Your task to perform on an android device: What's the weather today? Image 0: 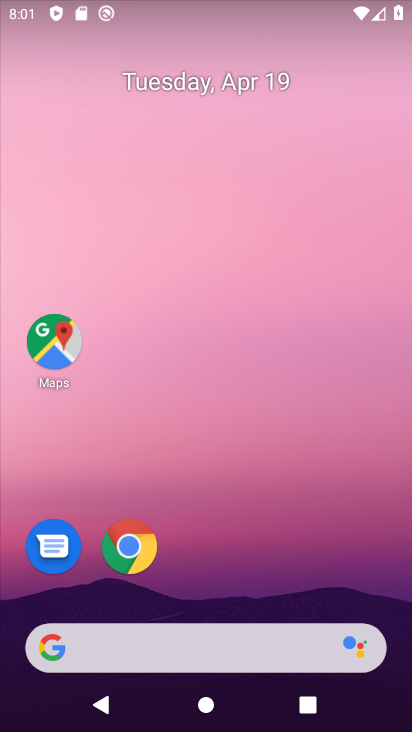
Step 0: drag from (113, 526) to (292, 157)
Your task to perform on an android device: What's the weather today? Image 1: 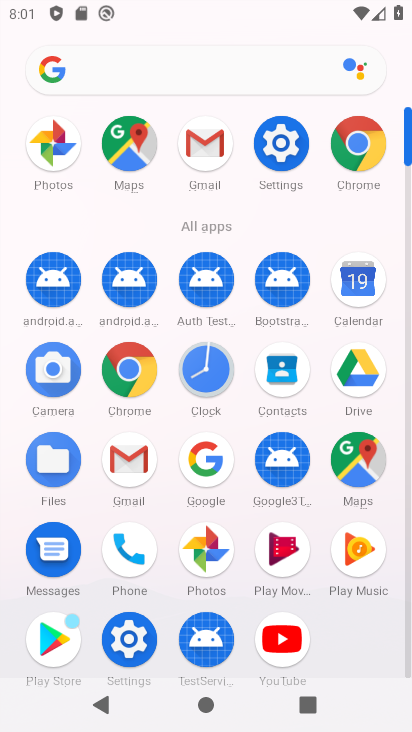
Step 1: drag from (54, 353) to (101, 254)
Your task to perform on an android device: What's the weather today? Image 2: 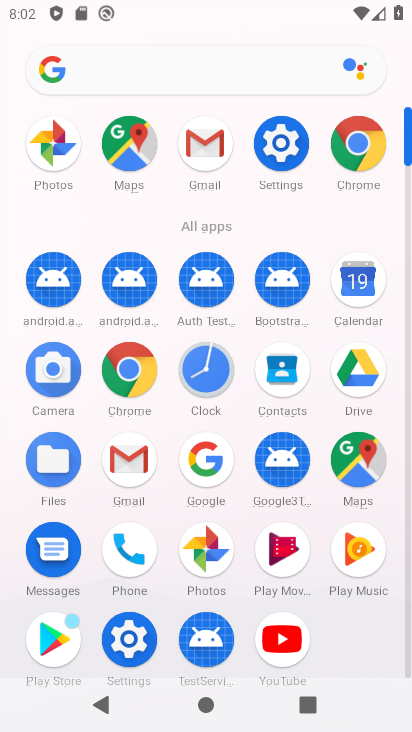
Step 2: drag from (53, 444) to (161, 211)
Your task to perform on an android device: What's the weather today? Image 3: 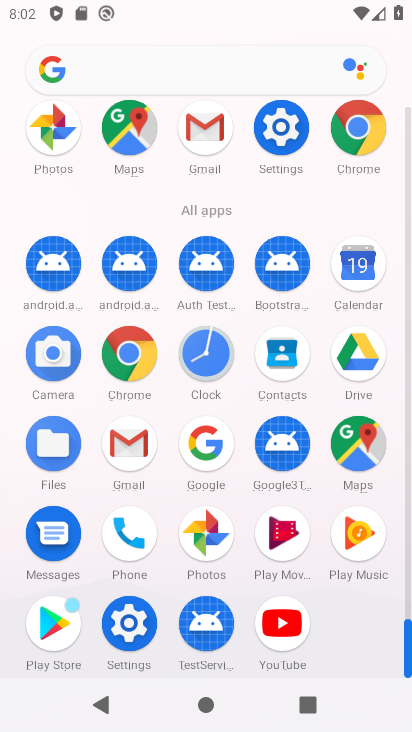
Step 3: press home button
Your task to perform on an android device: What's the weather today? Image 4: 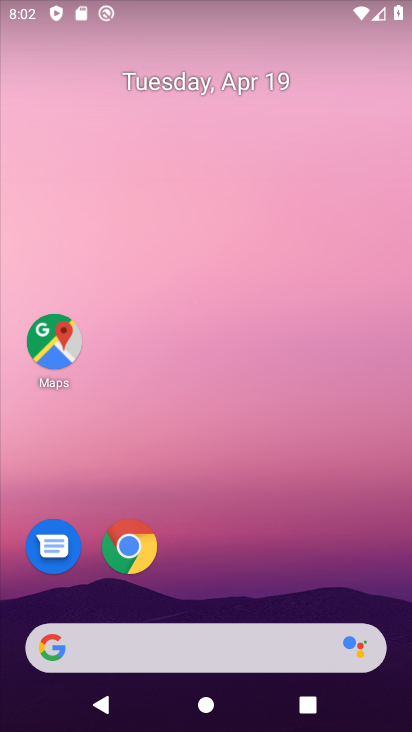
Step 4: click (248, 84)
Your task to perform on an android device: What's the weather today? Image 5: 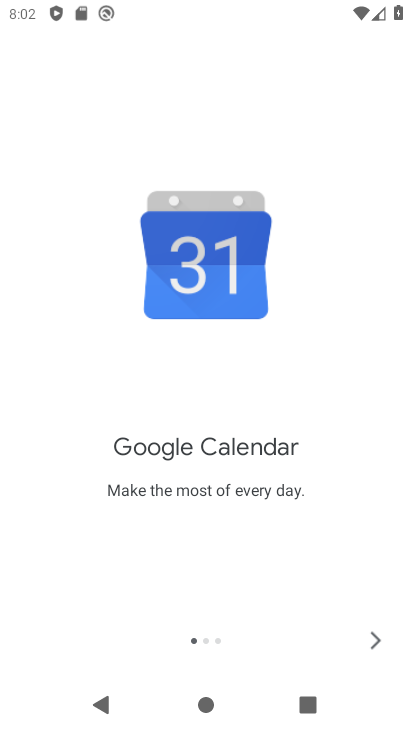
Step 5: click (378, 643)
Your task to perform on an android device: What's the weather today? Image 6: 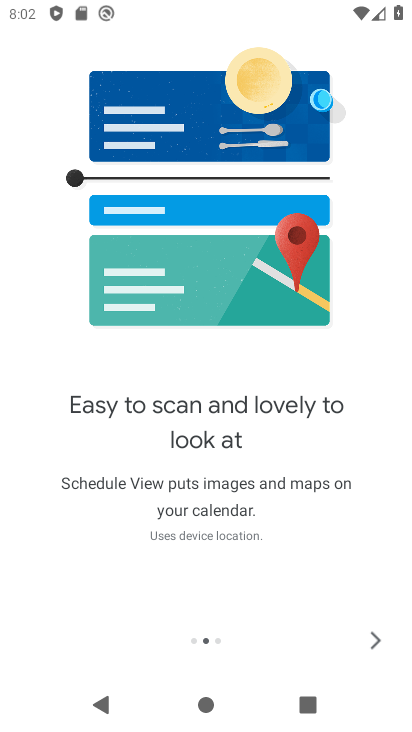
Step 6: click (378, 643)
Your task to perform on an android device: What's the weather today? Image 7: 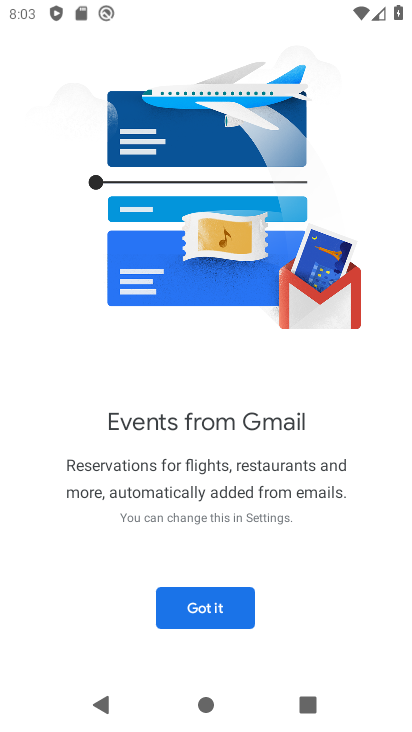
Step 7: click (227, 617)
Your task to perform on an android device: What's the weather today? Image 8: 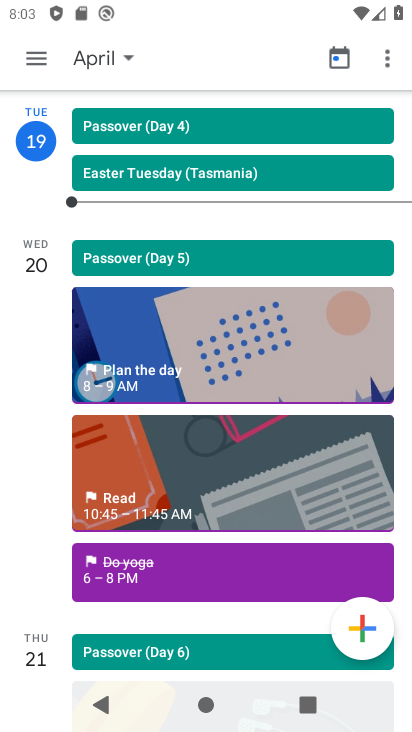
Step 8: press home button
Your task to perform on an android device: What's the weather today? Image 9: 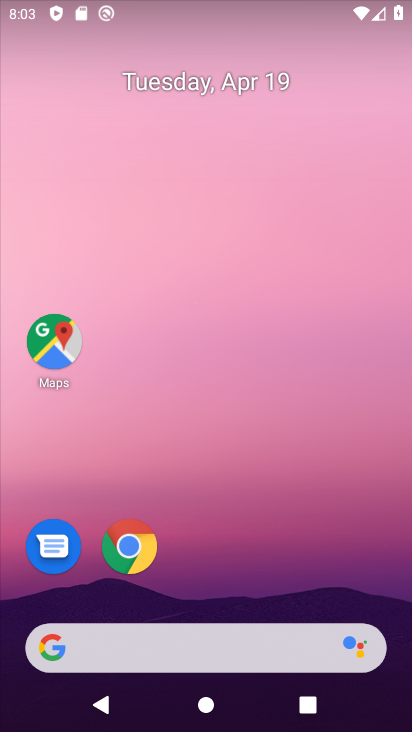
Step 9: click (126, 636)
Your task to perform on an android device: What's the weather today? Image 10: 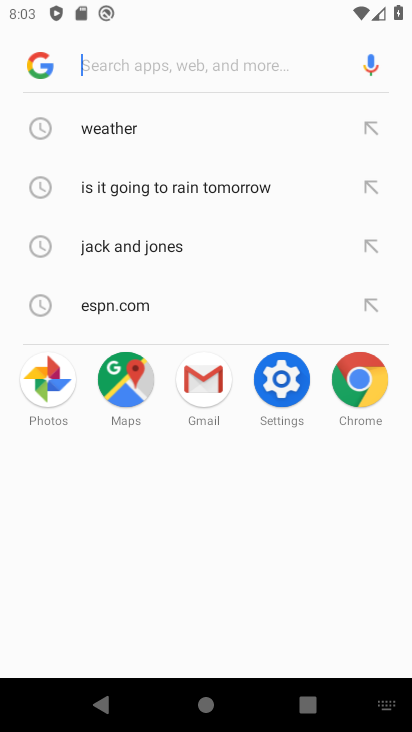
Step 10: type "what"
Your task to perform on an android device: What's the weather today? Image 11: 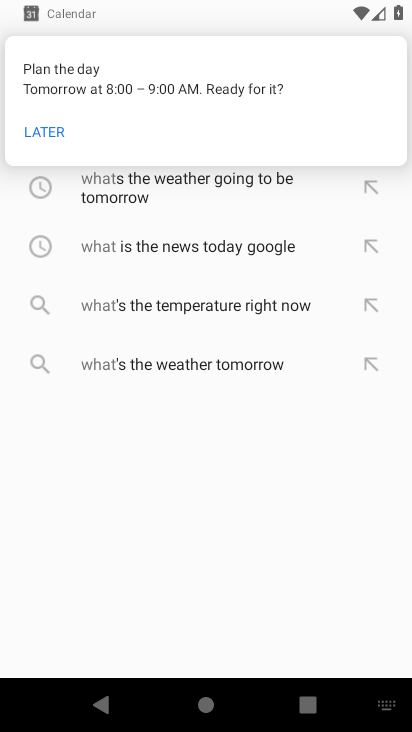
Step 11: type "What's the weather today?"
Your task to perform on an android device: What's the weather today? Image 12: 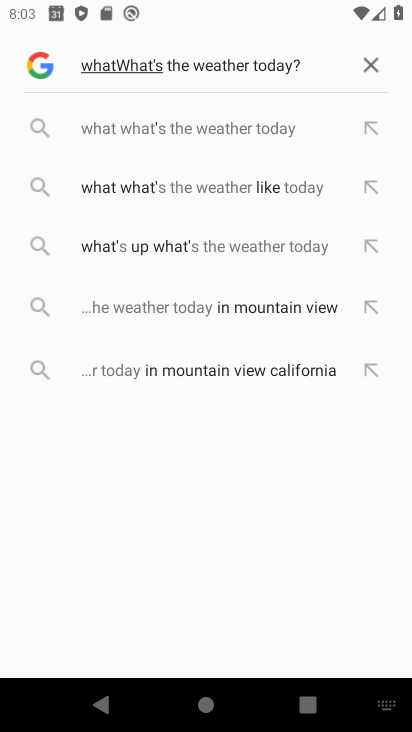
Step 12: click (113, 58)
Your task to perform on an android device: What's the weather today? Image 13: 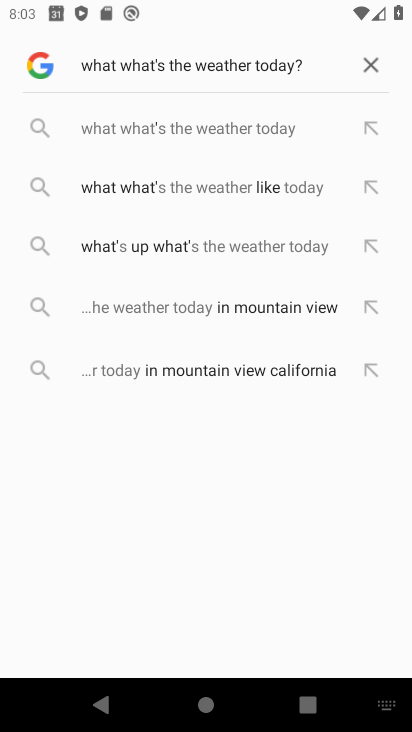
Step 13: click (116, 60)
Your task to perform on an android device: What's the weather today? Image 14: 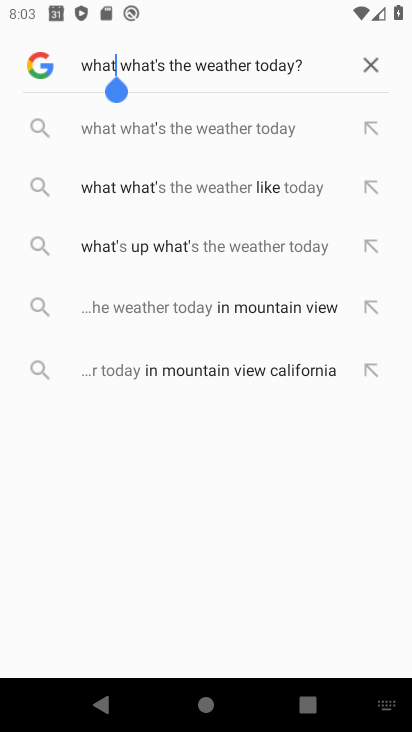
Step 14: click (117, 69)
Your task to perform on an android device: What's the weather today? Image 15: 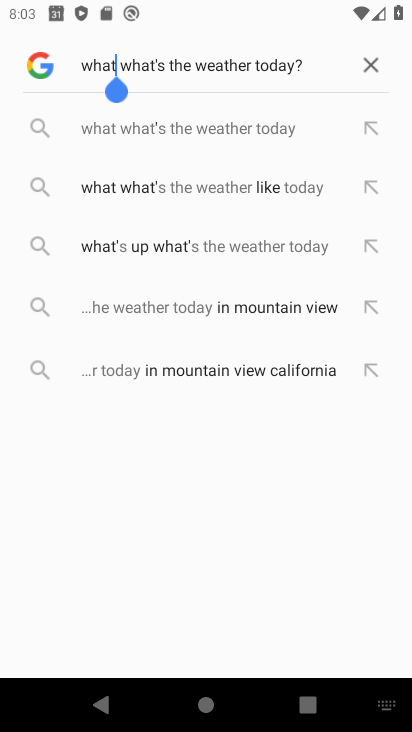
Step 15: click (117, 67)
Your task to perform on an android device: What's the weather today? Image 16: 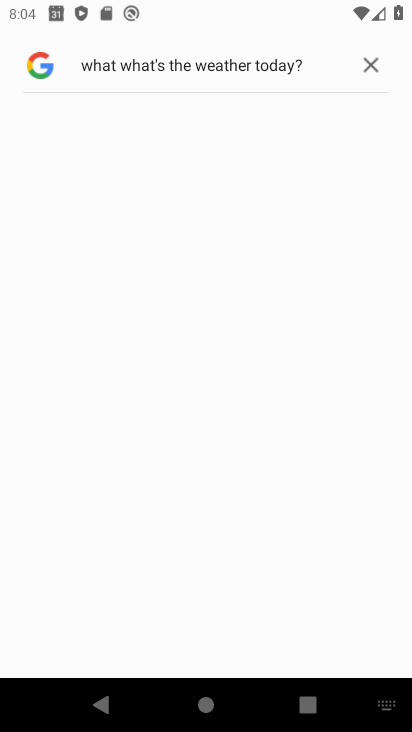
Step 16: click (365, 62)
Your task to perform on an android device: What's the weather today? Image 17: 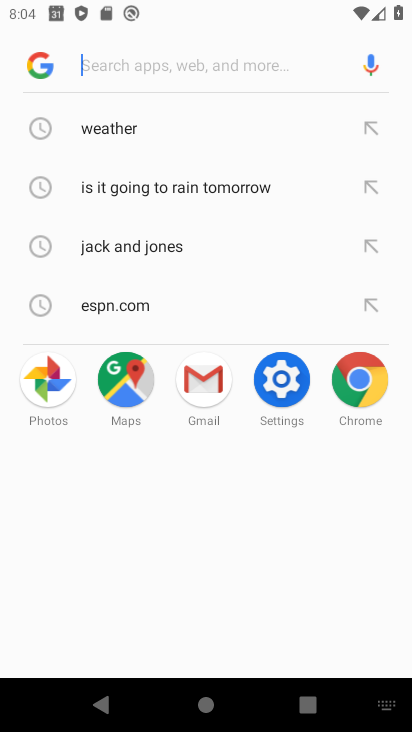
Step 17: type "What's the weather today?"
Your task to perform on an android device: What's the weather today? Image 18: 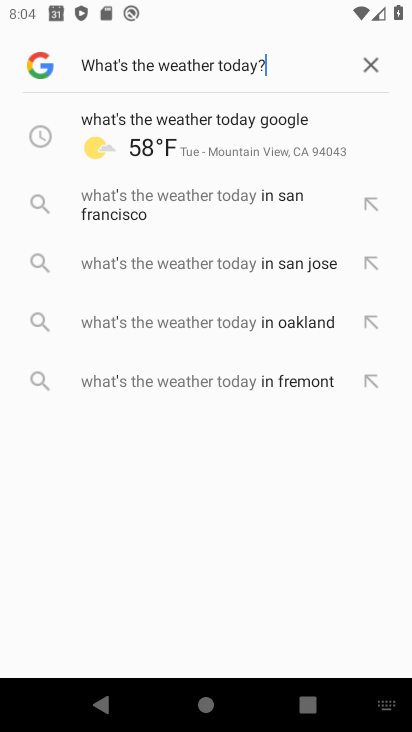
Step 18: task complete